Your task to perform on an android device: turn off location Image 0: 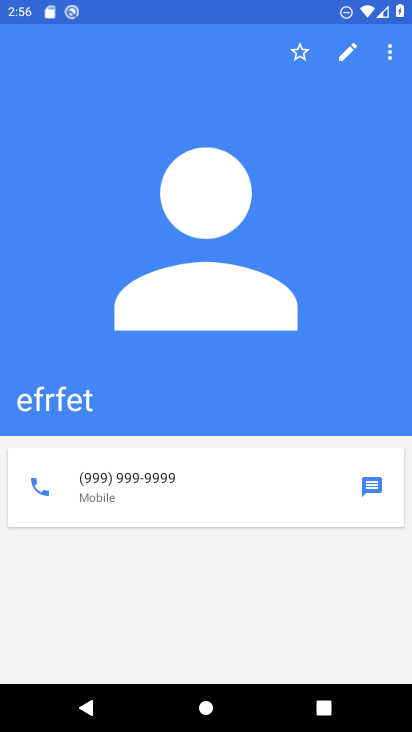
Step 0: press home button
Your task to perform on an android device: turn off location Image 1: 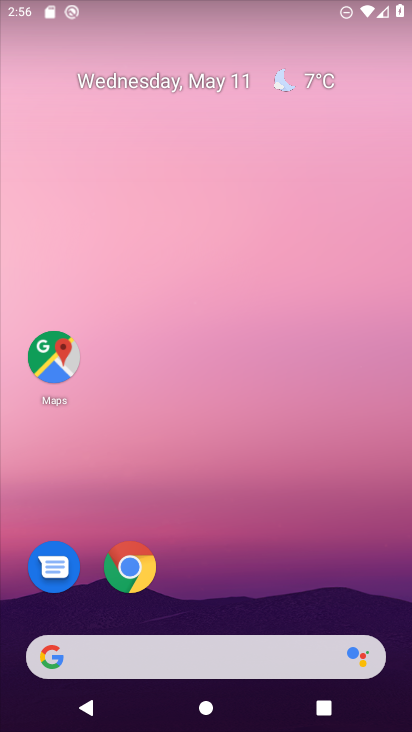
Step 1: drag from (276, 582) to (236, 279)
Your task to perform on an android device: turn off location Image 2: 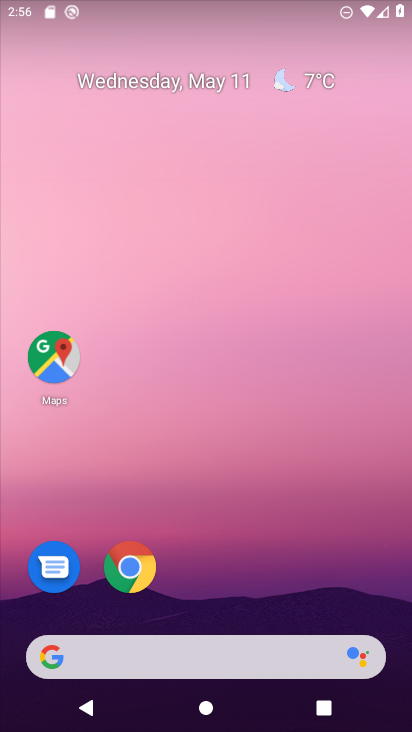
Step 2: drag from (321, 590) to (234, 134)
Your task to perform on an android device: turn off location Image 3: 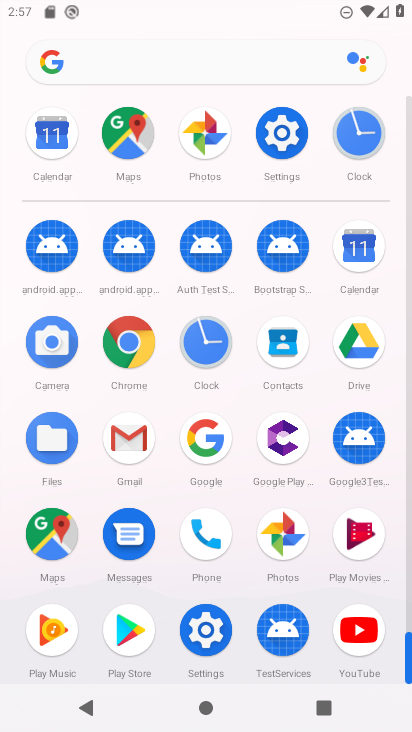
Step 3: click (220, 623)
Your task to perform on an android device: turn off location Image 4: 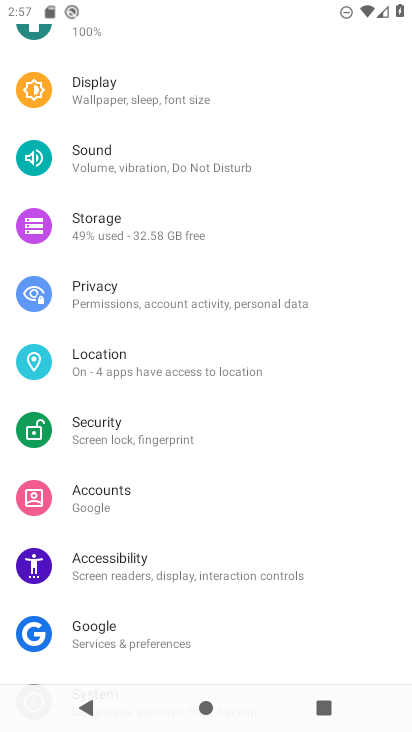
Step 4: click (140, 356)
Your task to perform on an android device: turn off location Image 5: 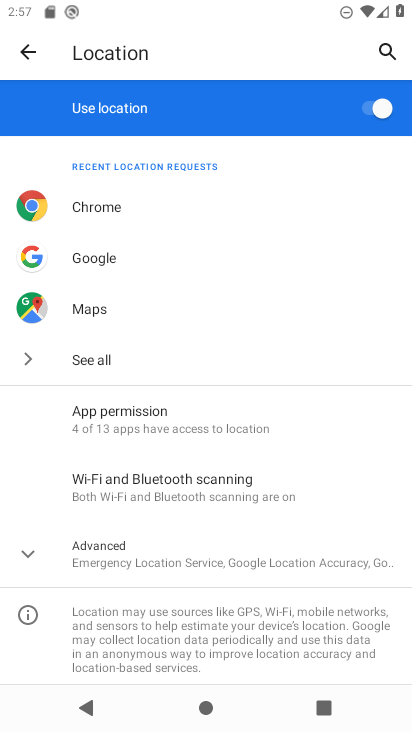
Step 5: click (380, 114)
Your task to perform on an android device: turn off location Image 6: 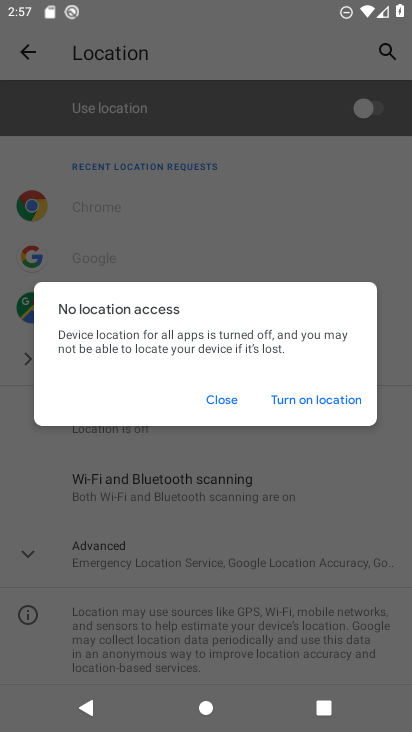
Step 6: task complete